Your task to perform on an android device: turn off priority inbox in the gmail app Image 0: 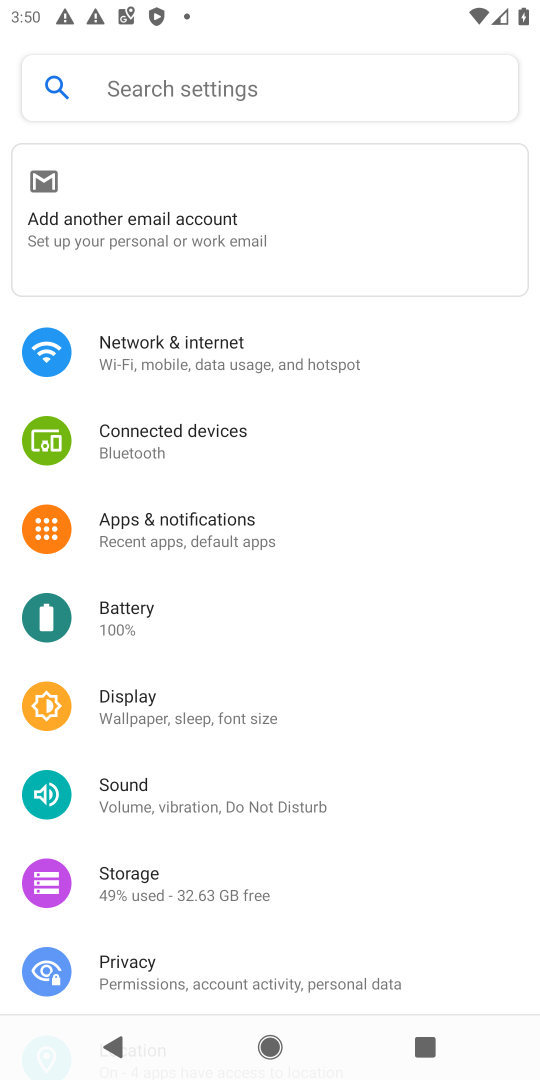
Step 0: press home button
Your task to perform on an android device: turn off priority inbox in the gmail app Image 1: 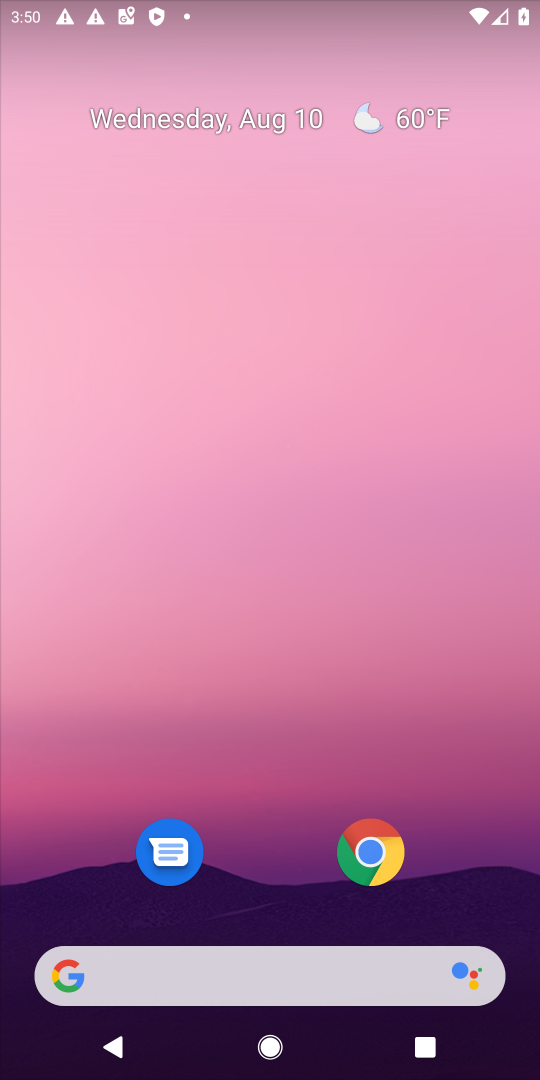
Step 1: drag from (262, 873) to (321, 84)
Your task to perform on an android device: turn off priority inbox in the gmail app Image 2: 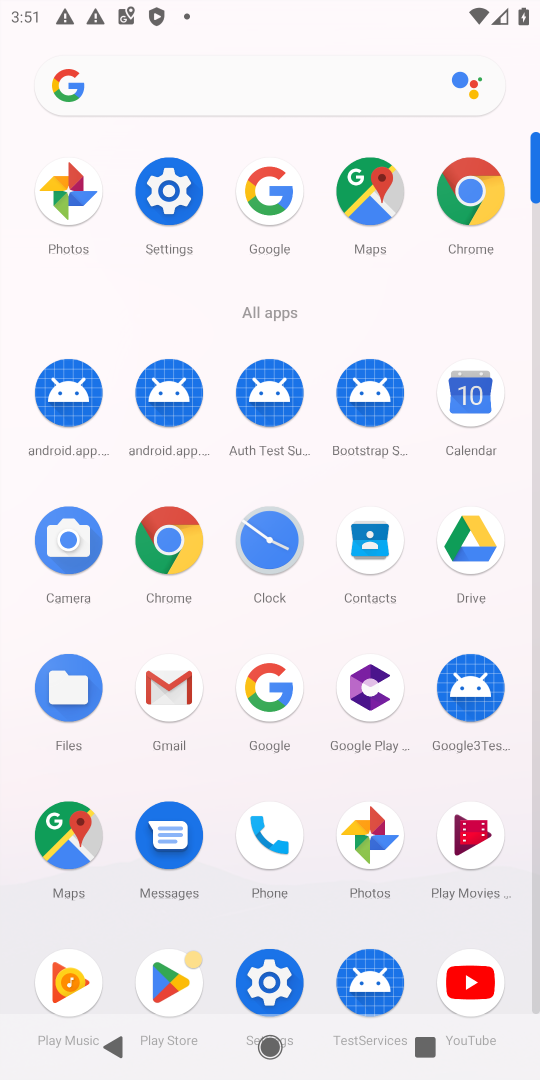
Step 2: click (171, 685)
Your task to perform on an android device: turn off priority inbox in the gmail app Image 3: 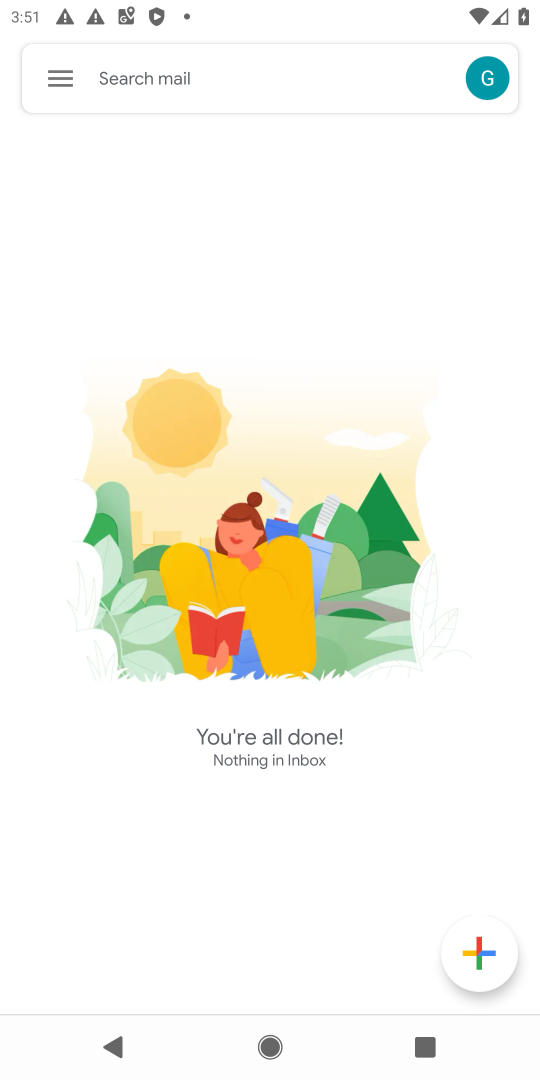
Step 3: click (93, 62)
Your task to perform on an android device: turn off priority inbox in the gmail app Image 4: 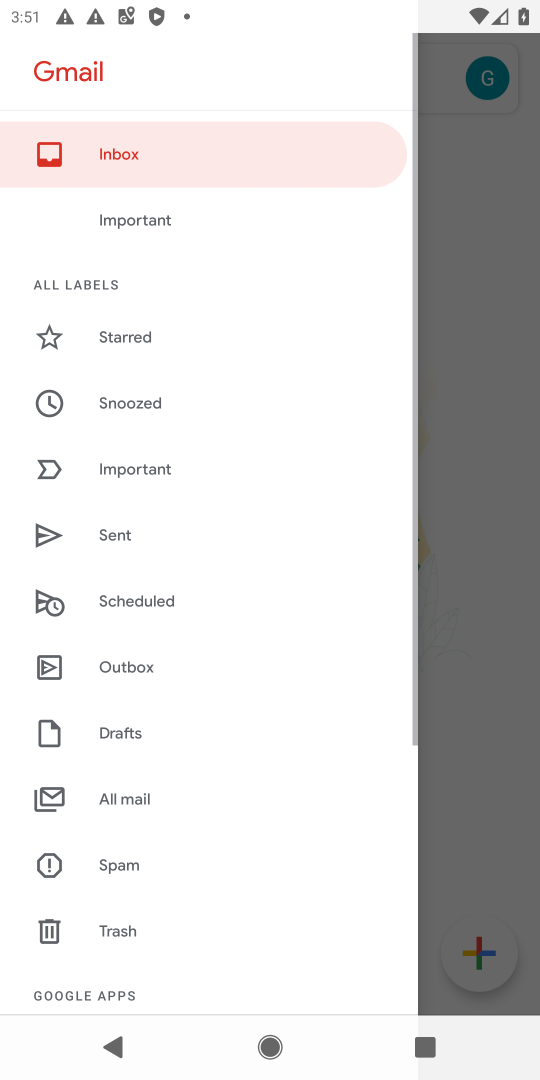
Step 4: drag from (89, 752) to (325, 145)
Your task to perform on an android device: turn off priority inbox in the gmail app Image 5: 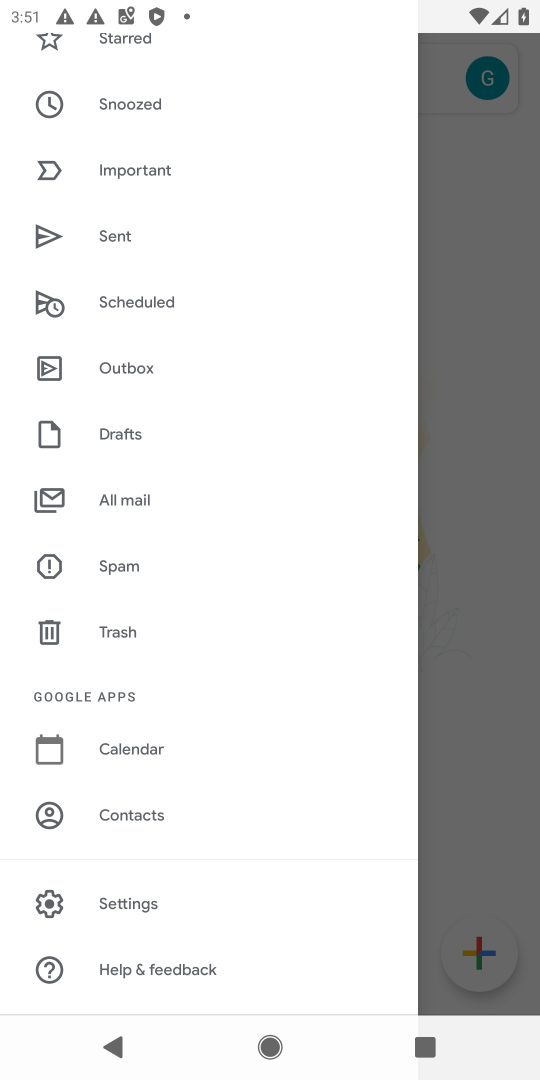
Step 5: click (118, 910)
Your task to perform on an android device: turn off priority inbox in the gmail app Image 6: 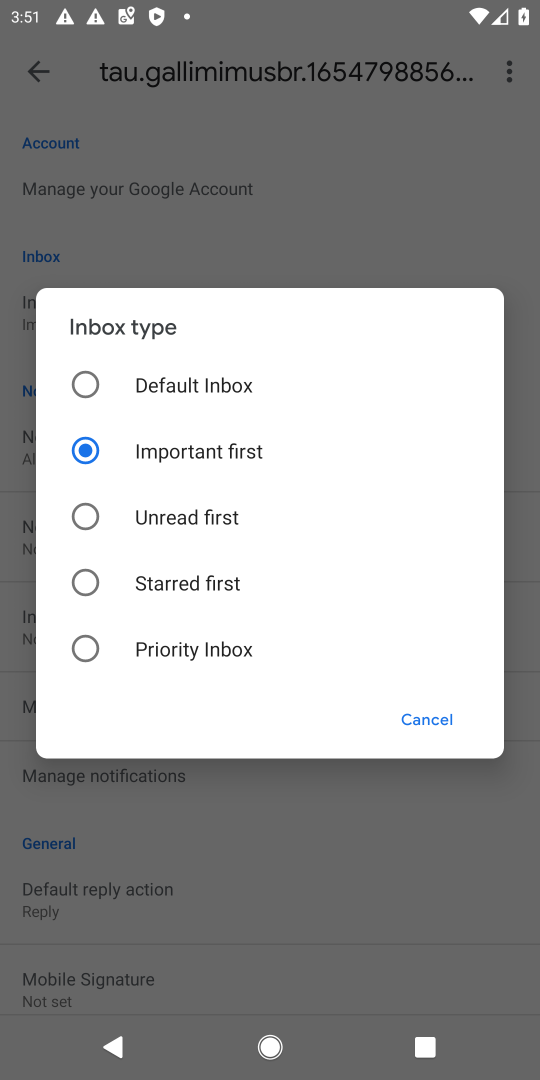
Step 6: task complete